Your task to perform on an android device: Open battery settings Image 0: 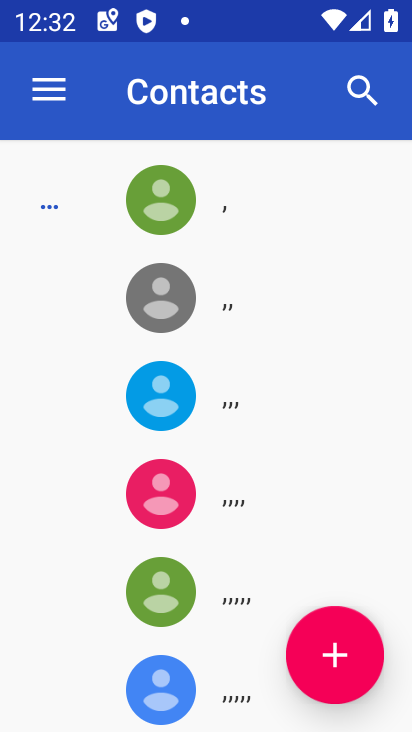
Step 0: press home button
Your task to perform on an android device: Open battery settings Image 1: 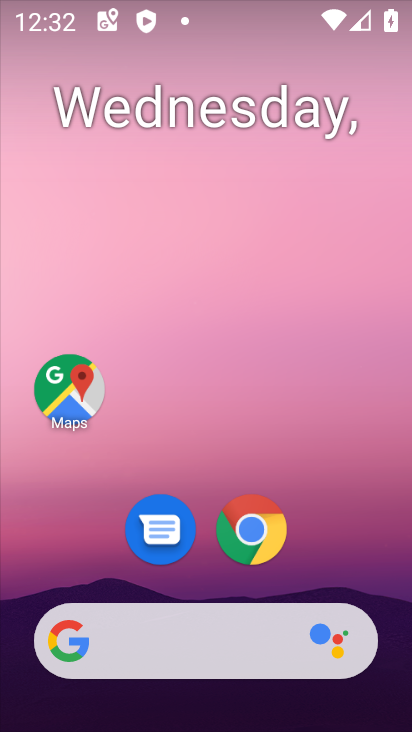
Step 1: drag from (384, 586) to (319, 76)
Your task to perform on an android device: Open battery settings Image 2: 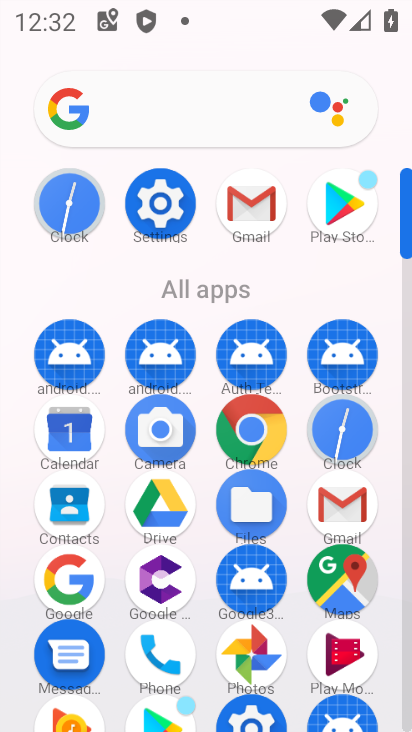
Step 2: click (409, 698)
Your task to perform on an android device: Open battery settings Image 3: 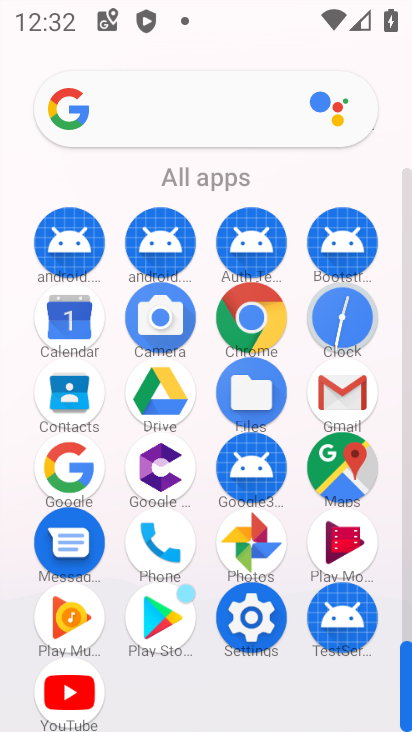
Step 3: click (252, 618)
Your task to perform on an android device: Open battery settings Image 4: 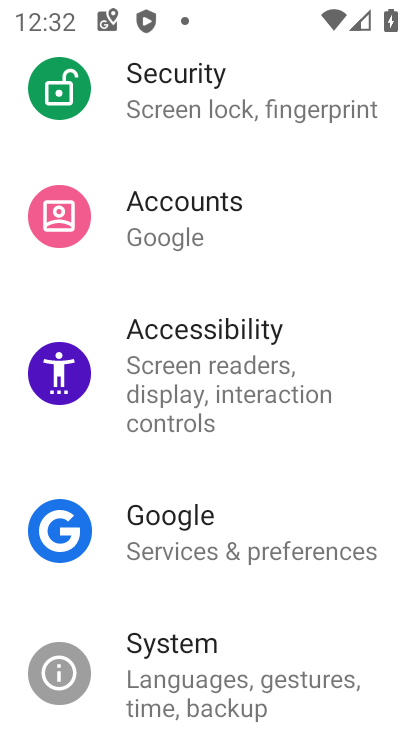
Step 4: drag from (340, 190) to (341, 482)
Your task to perform on an android device: Open battery settings Image 5: 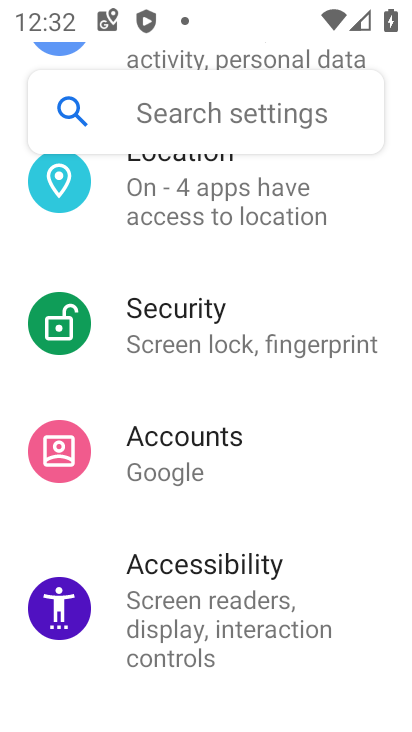
Step 5: drag from (357, 225) to (364, 548)
Your task to perform on an android device: Open battery settings Image 6: 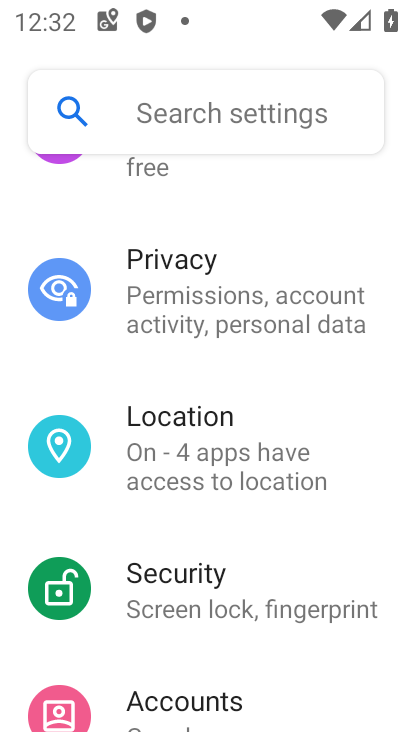
Step 6: drag from (384, 276) to (376, 546)
Your task to perform on an android device: Open battery settings Image 7: 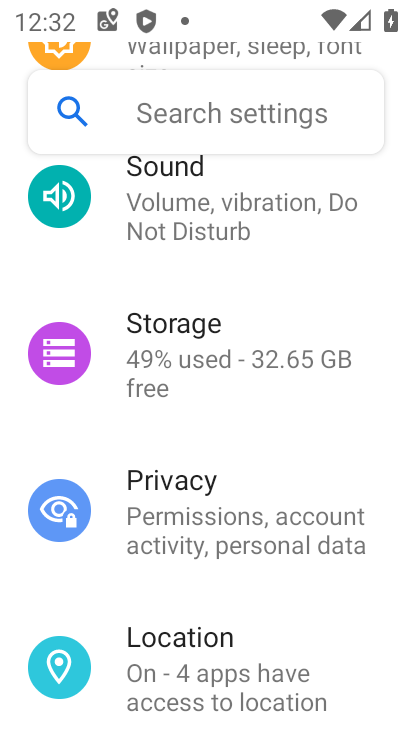
Step 7: drag from (329, 273) to (370, 574)
Your task to perform on an android device: Open battery settings Image 8: 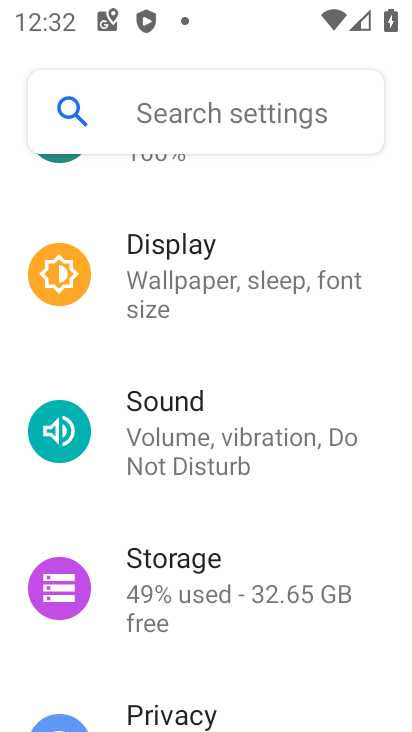
Step 8: drag from (380, 259) to (369, 557)
Your task to perform on an android device: Open battery settings Image 9: 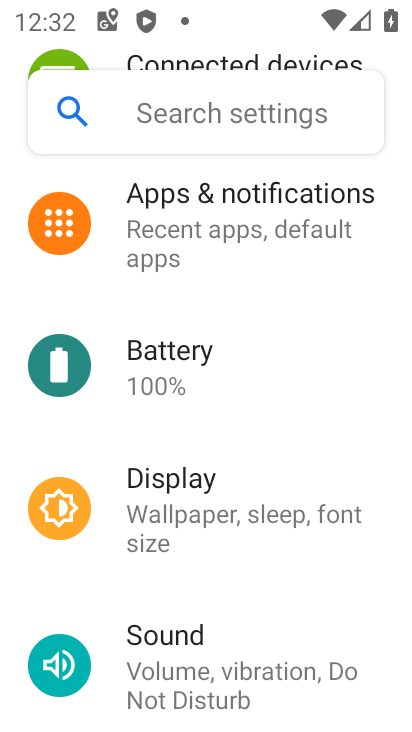
Step 9: click (157, 369)
Your task to perform on an android device: Open battery settings Image 10: 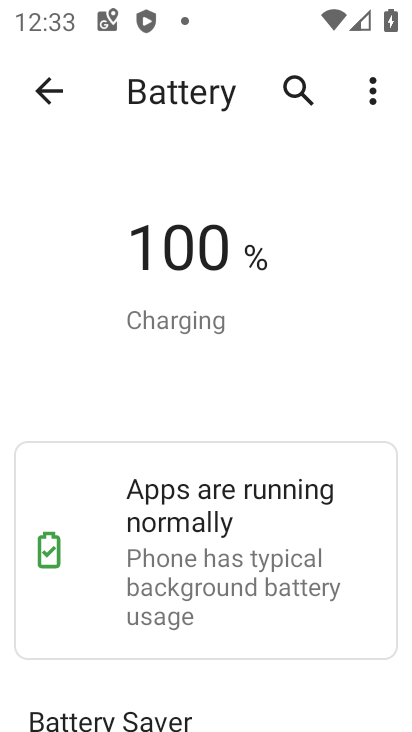
Step 10: task complete